Your task to perform on an android device: change the clock style Image 0: 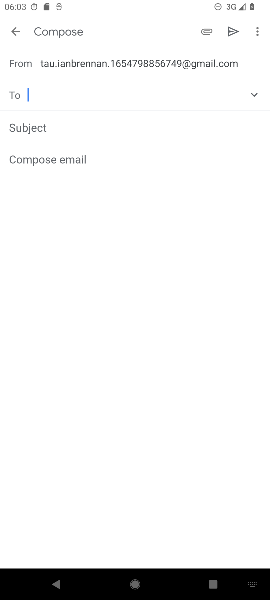
Step 0: press home button
Your task to perform on an android device: change the clock style Image 1: 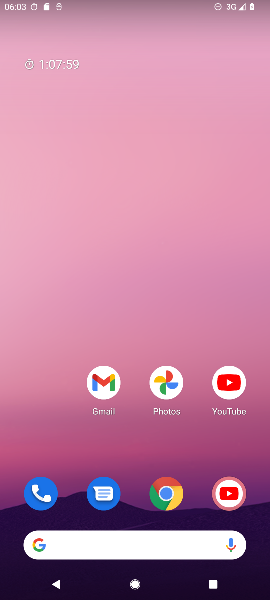
Step 1: drag from (60, 459) to (81, 83)
Your task to perform on an android device: change the clock style Image 2: 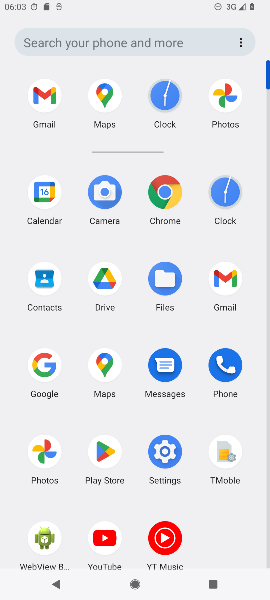
Step 2: click (224, 193)
Your task to perform on an android device: change the clock style Image 3: 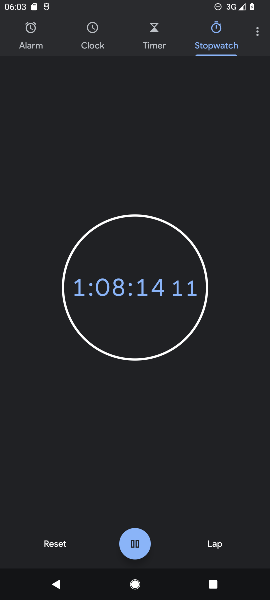
Step 3: click (257, 32)
Your task to perform on an android device: change the clock style Image 4: 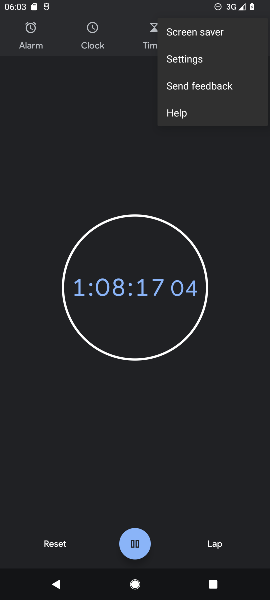
Step 4: click (211, 64)
Your task to perform on an android device: change the clock style Image 5: 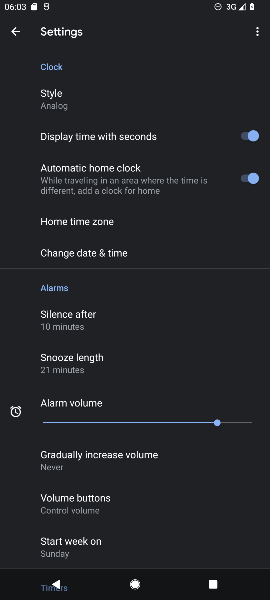
Step 5: drag from (187, 306) to (215, 174)
Your task to perform on an android device: change the clock style Image 6: 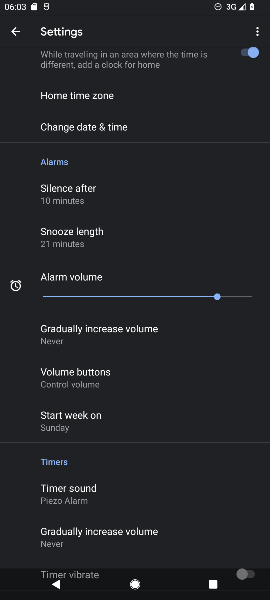
Step 6: drag from (211, 374) to (215, 281)
Your task to perform on an android device: change the clock style Image 7: 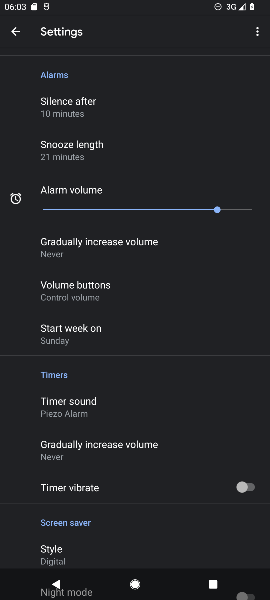
Step 7: drag from (204, 395) to (204, 272)
Your task to perform on an android device: change the clock style Image 8: 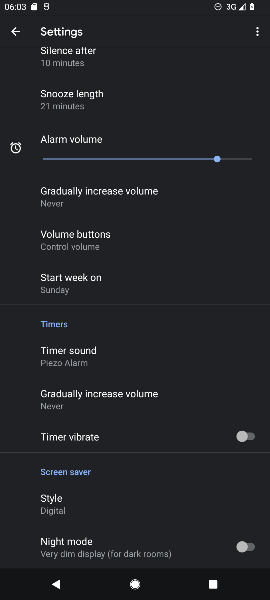
Step 8: drag from (215, 199) to (217, 292)
Your task to perform on an android device: change the clock style Image 9: 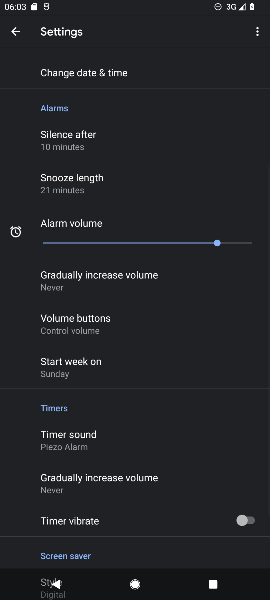
Step 9: drag from (221, 167) to (224, 277)
Your task to perform on an android device: change the clock style Image 10: 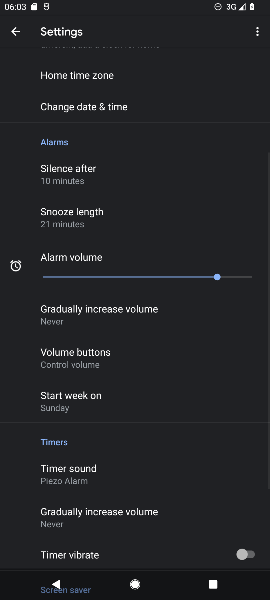
Step 10: drag from (234, 150) to (236, 270)
Your task to perform on an android device: change the clock style Image 11: 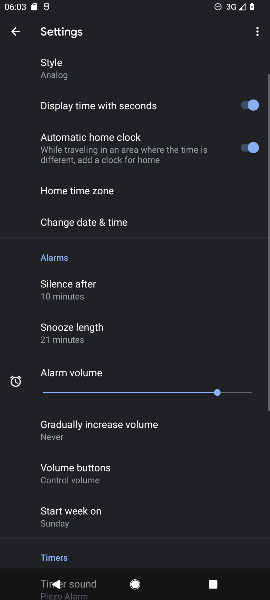
Step 11: drag from (214, 110) to (216, 245)
Your task to perform on an android device: change the clock style Image 12: 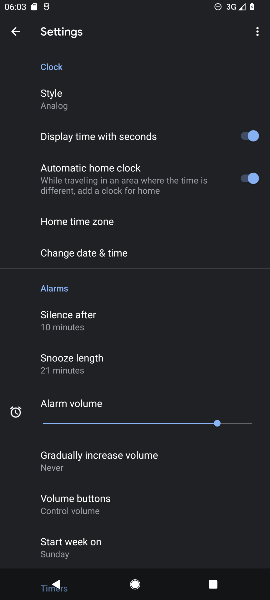
Step 12: click (81, 93)
Your task to perform on an android device: change the clock style Image 13: 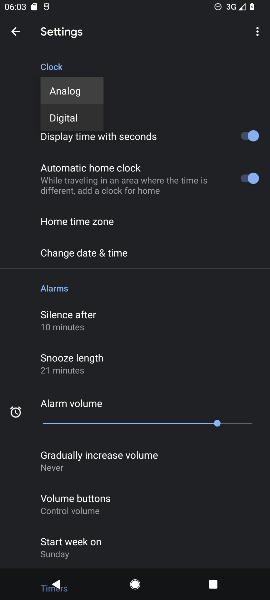
Step 13: click (66, 119)
Your task to perform on an android device: change the clock style Image 14: 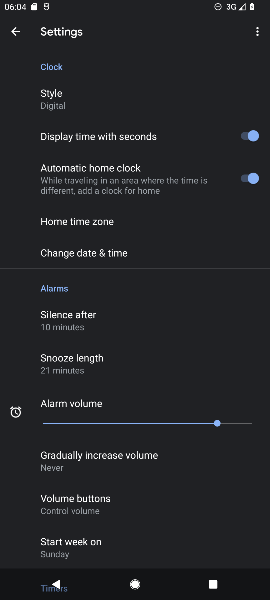
Step 14: task complete